Your task to perform on an android device: turn off airplane mode Image 0: 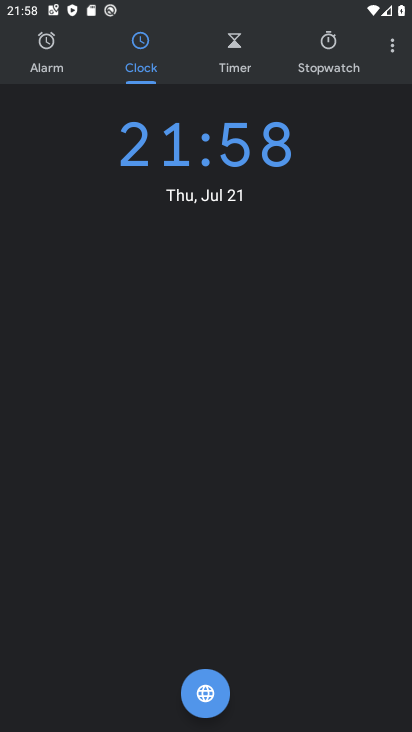
Step 0: press home button
Your task to perform on an android device: turn off airplane mode Image 1: 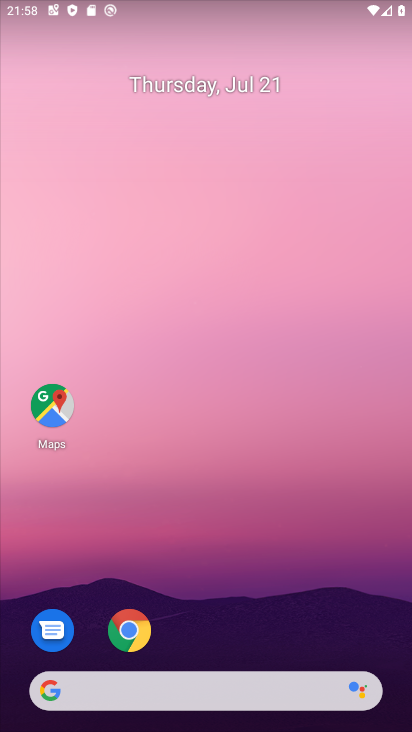
Step 1: drag from (184, 659) to (184, 19)
Your task to perform on an android device: turn off airplane mode Image 2: 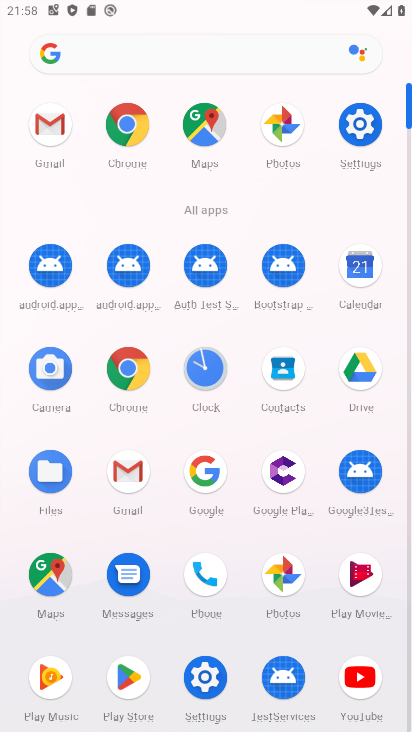
Step 2: click (199, 673)
Your task to perform on an android device: turn off airplane mode Image 3: 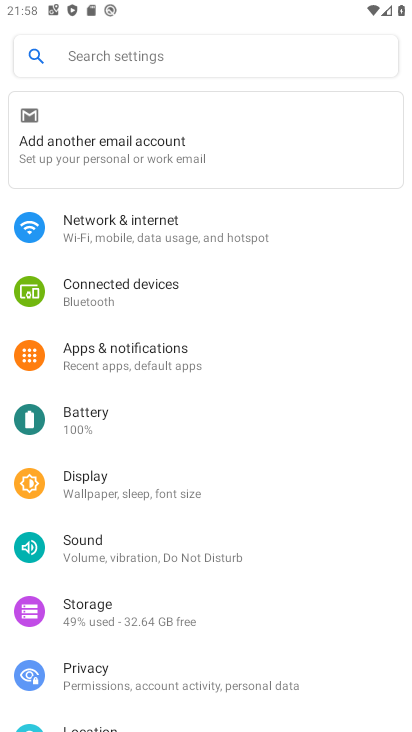
Step 3: click (163, 246)
Your task to perform on an android device: turn off airplane mode Image 4: 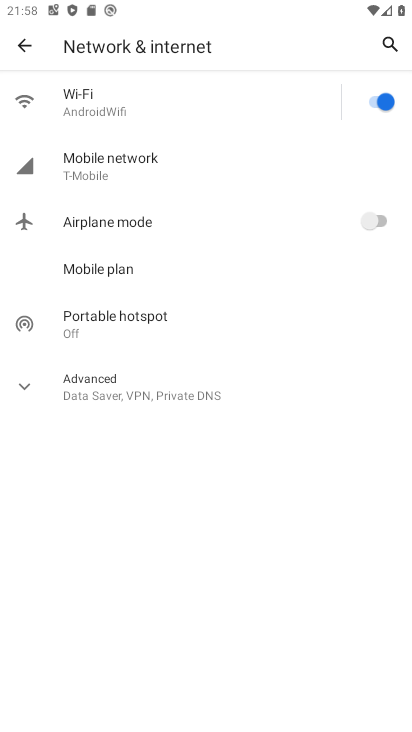
Step 4: task complete